Your task to perform on an android device: toggle javascript in the chrome app Image 0: 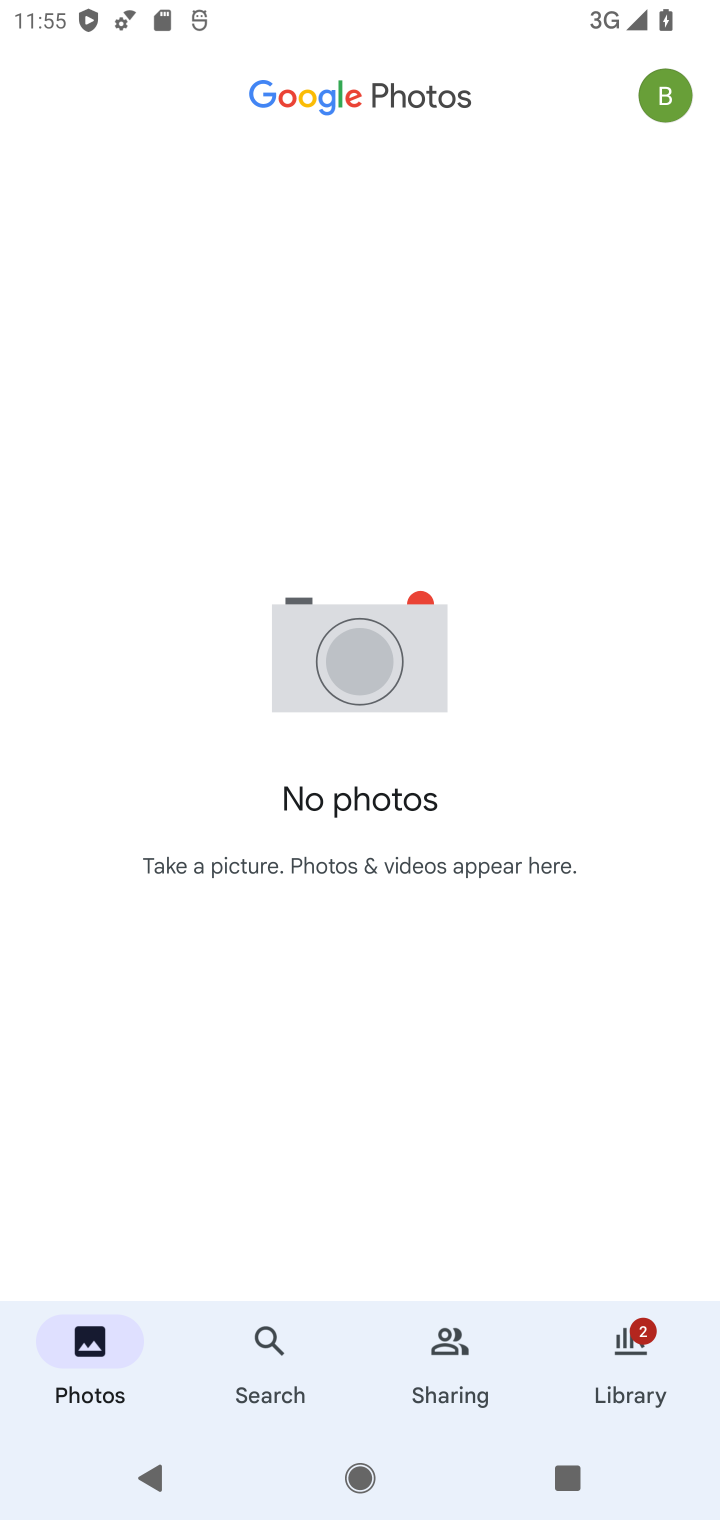
Step 0: press home button
Your task to perform on an android device: toggle javascript in the chrome app Image 1: 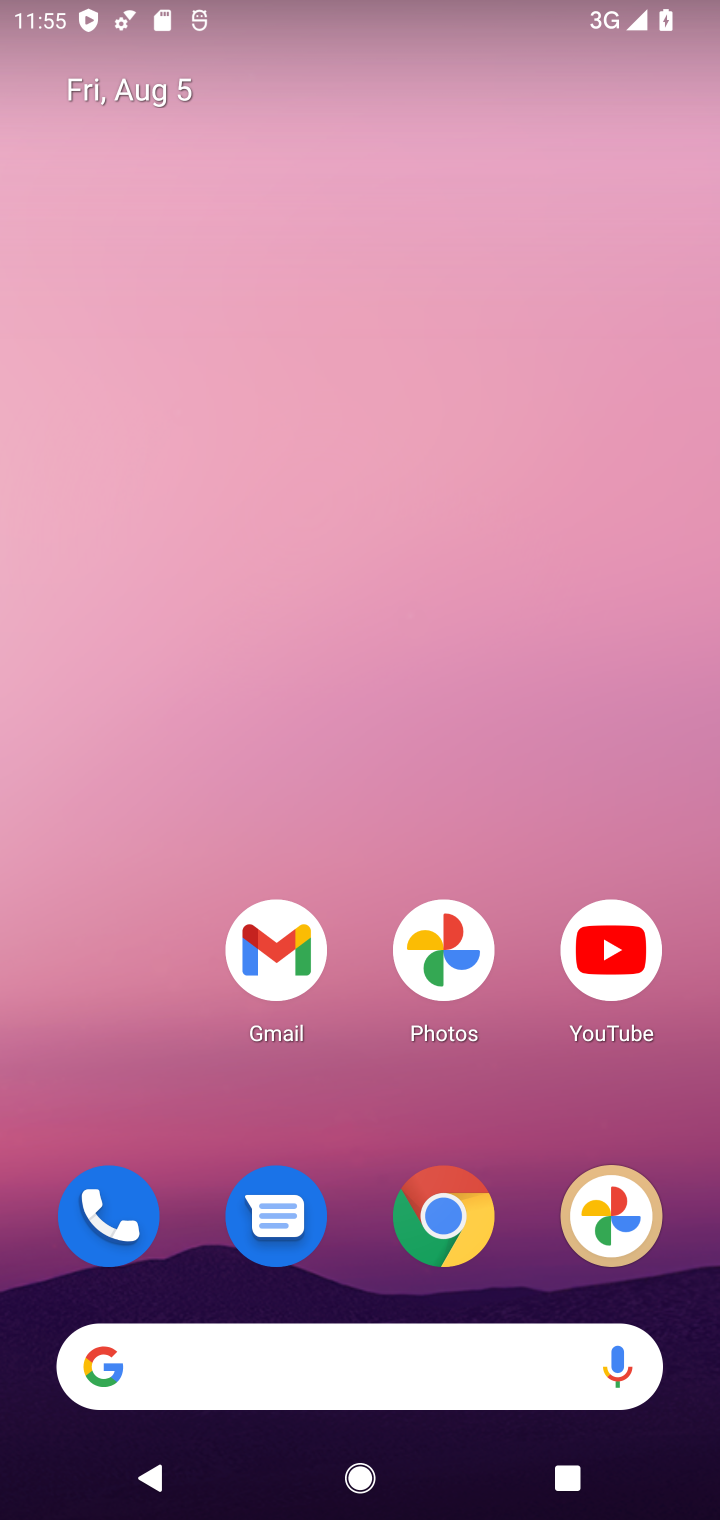
Step 1: click (439, 1209)
Your task to perform on an android device: toggle javascript in the chrome app Image 2: 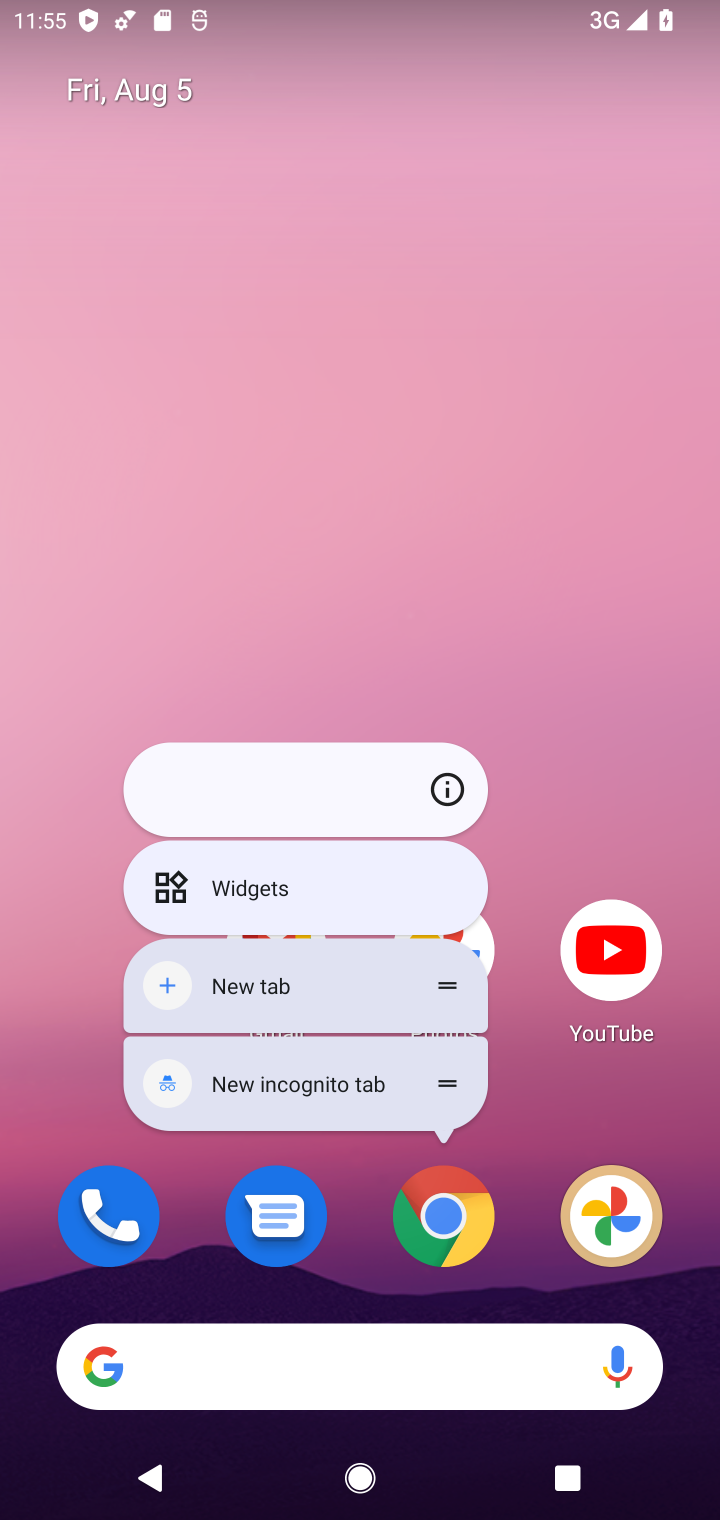
Step 2: click (430, 1208)
Your task to perform on an android device: toggle javascript in the chrome app Image 3: 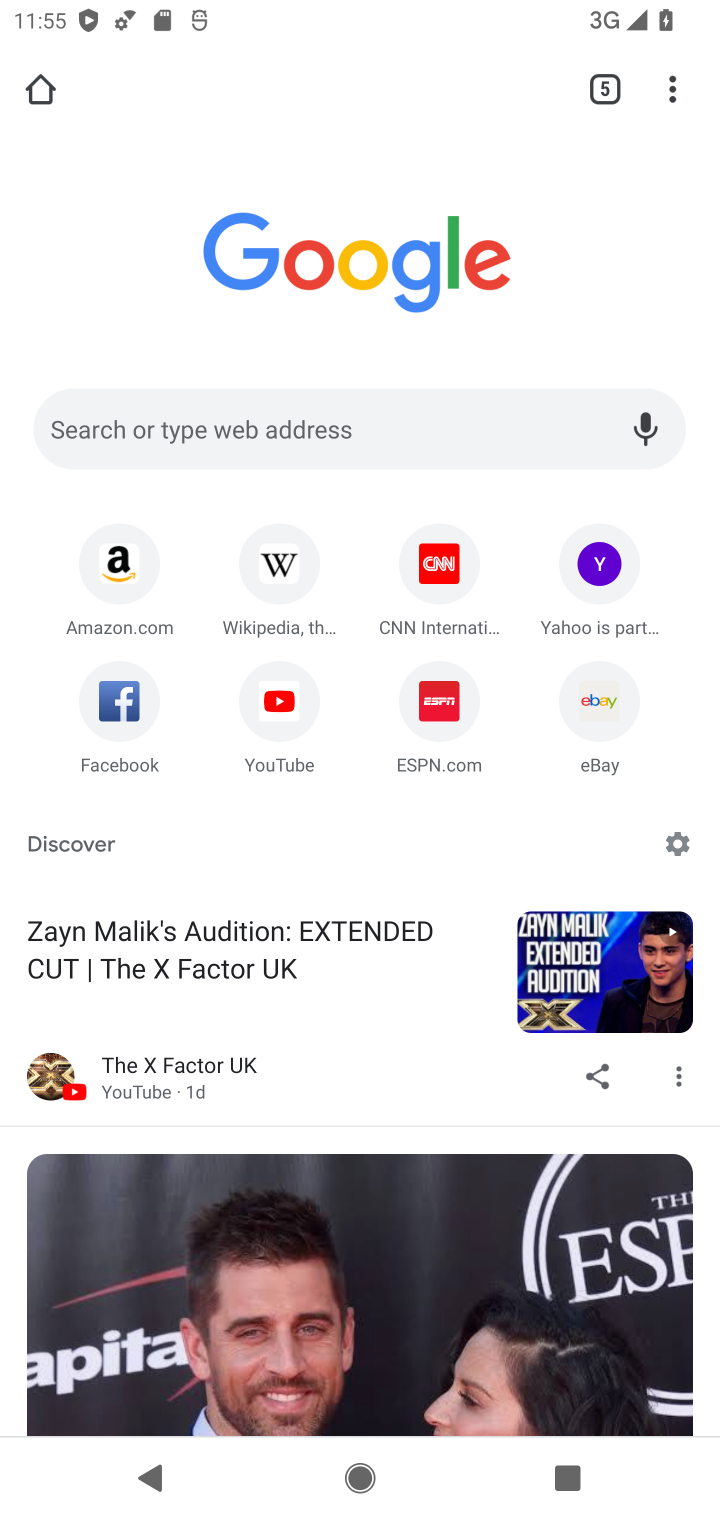
Step 3: drag from (682, 77) to (547, 476)
Your task to perform on an android device: toggle javascript in the chrome app Image 4: 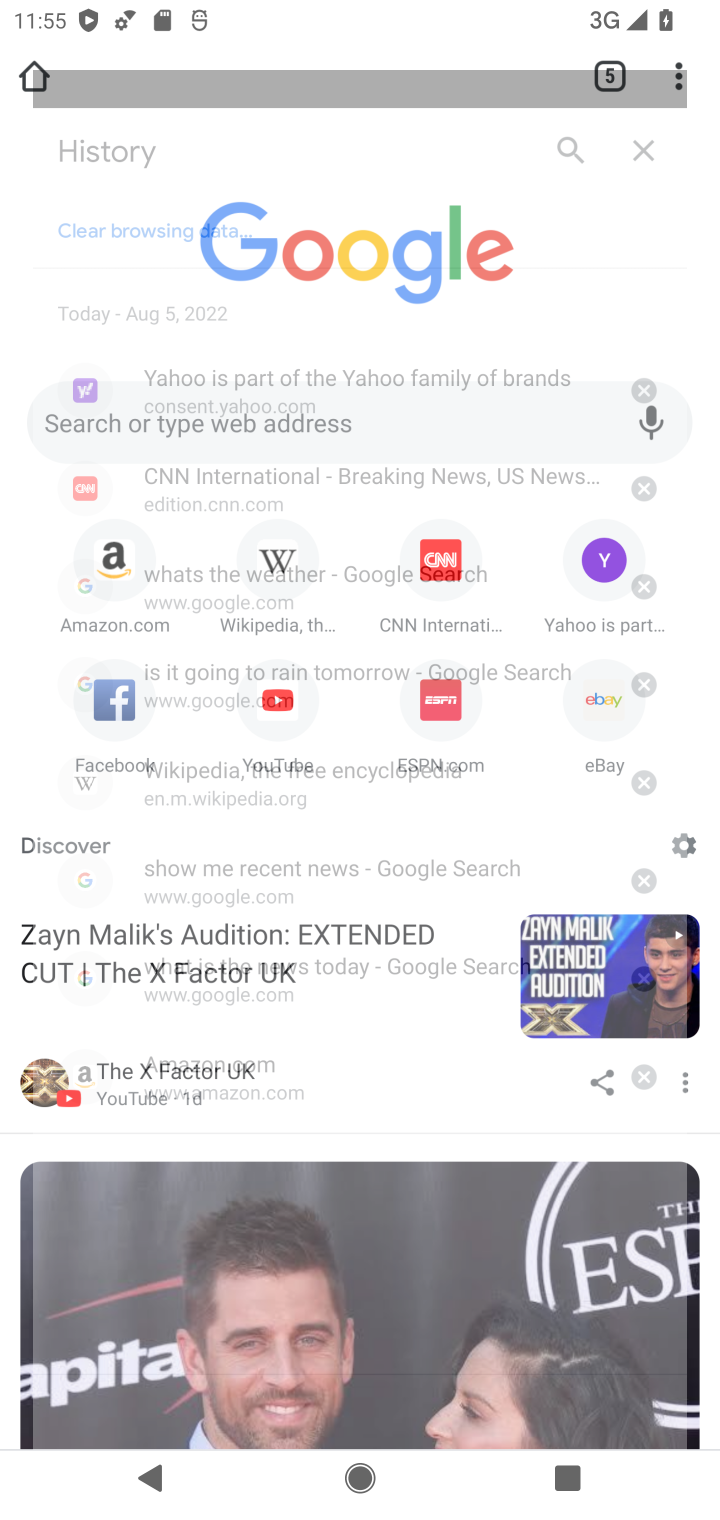
Step 4: click (414, 908)
Your task to perform on an android device: toggle javascript in the chrome app Image 5: 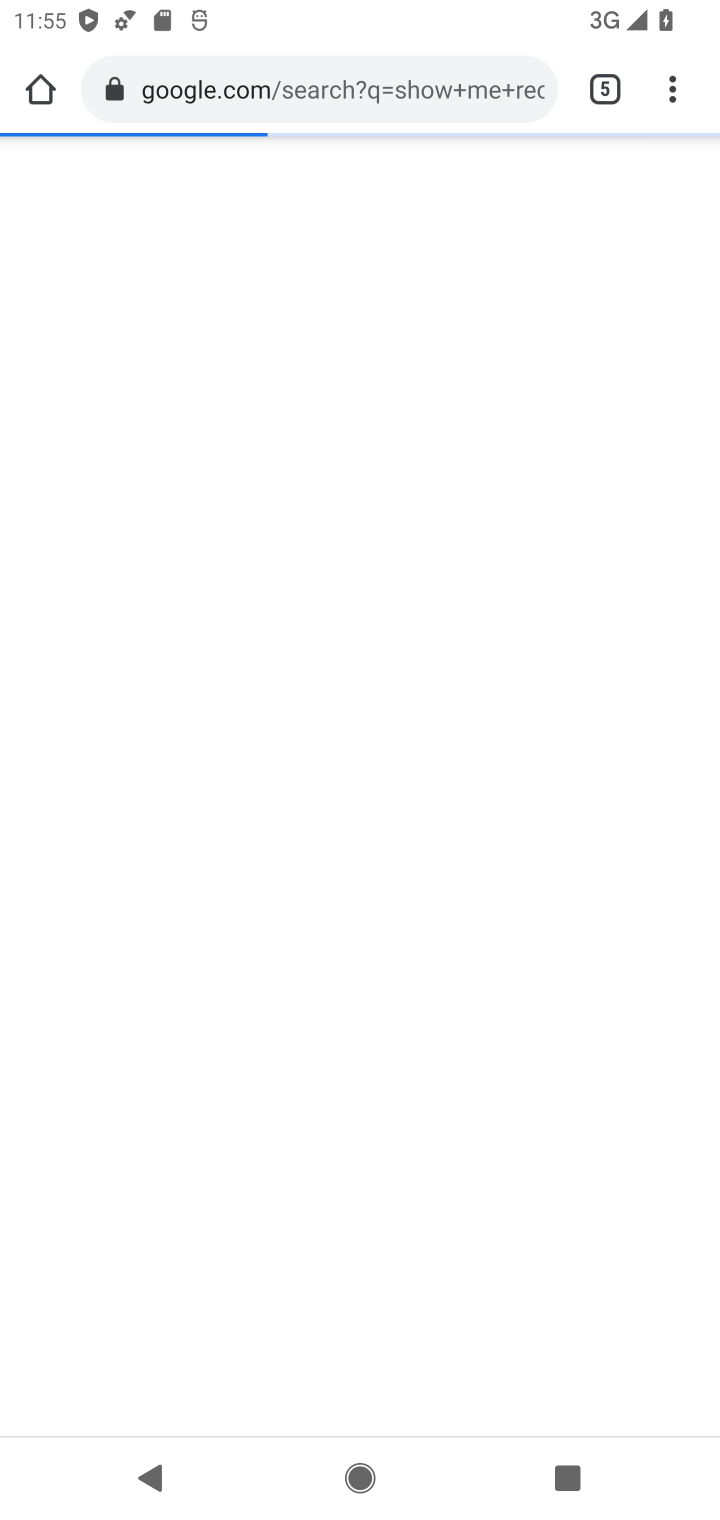
Step 5: click (670, 69)
Your task to perform on an android device: toggle javascript in the chrome app Image 6: 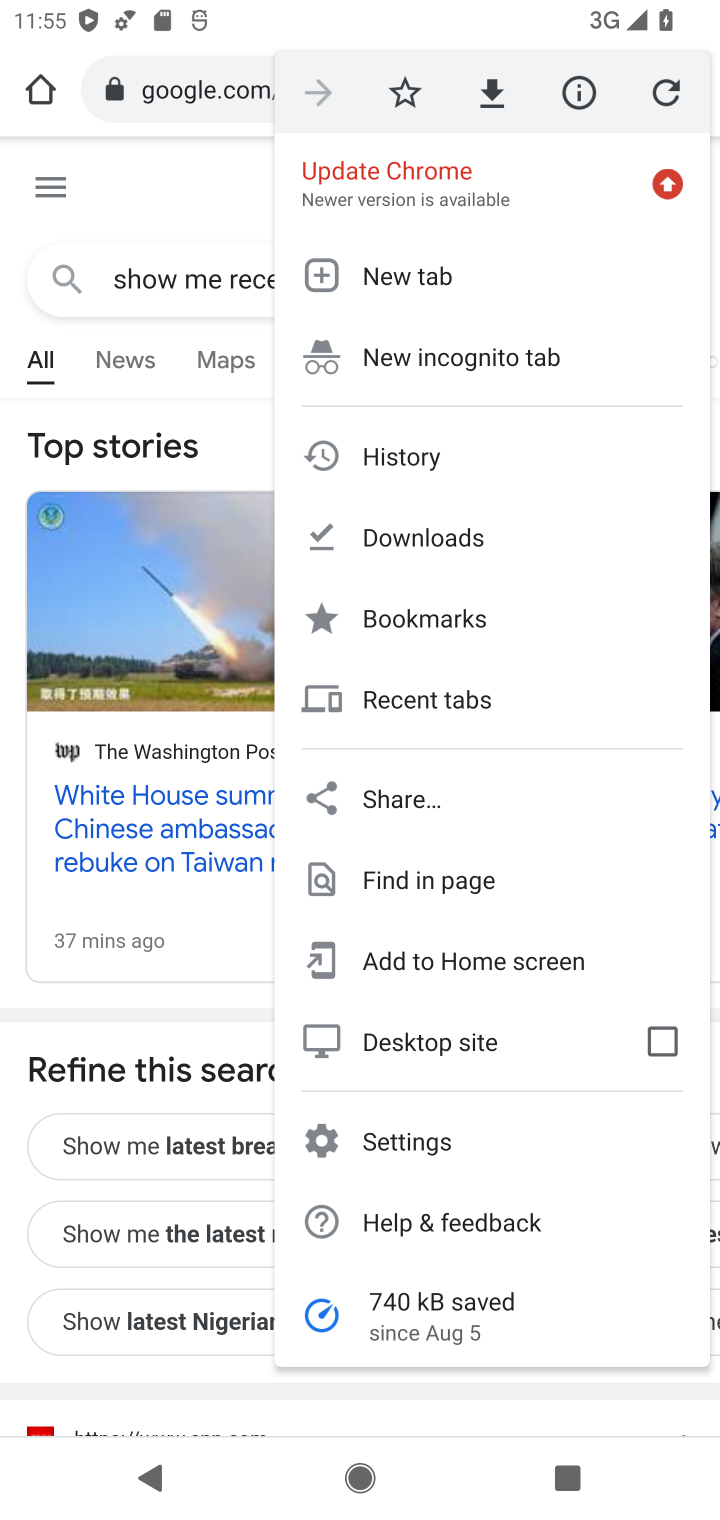
Step 6: click (394, 1137)
Your task to perform on an android device: toggle javascript in the chrome app Image 7: 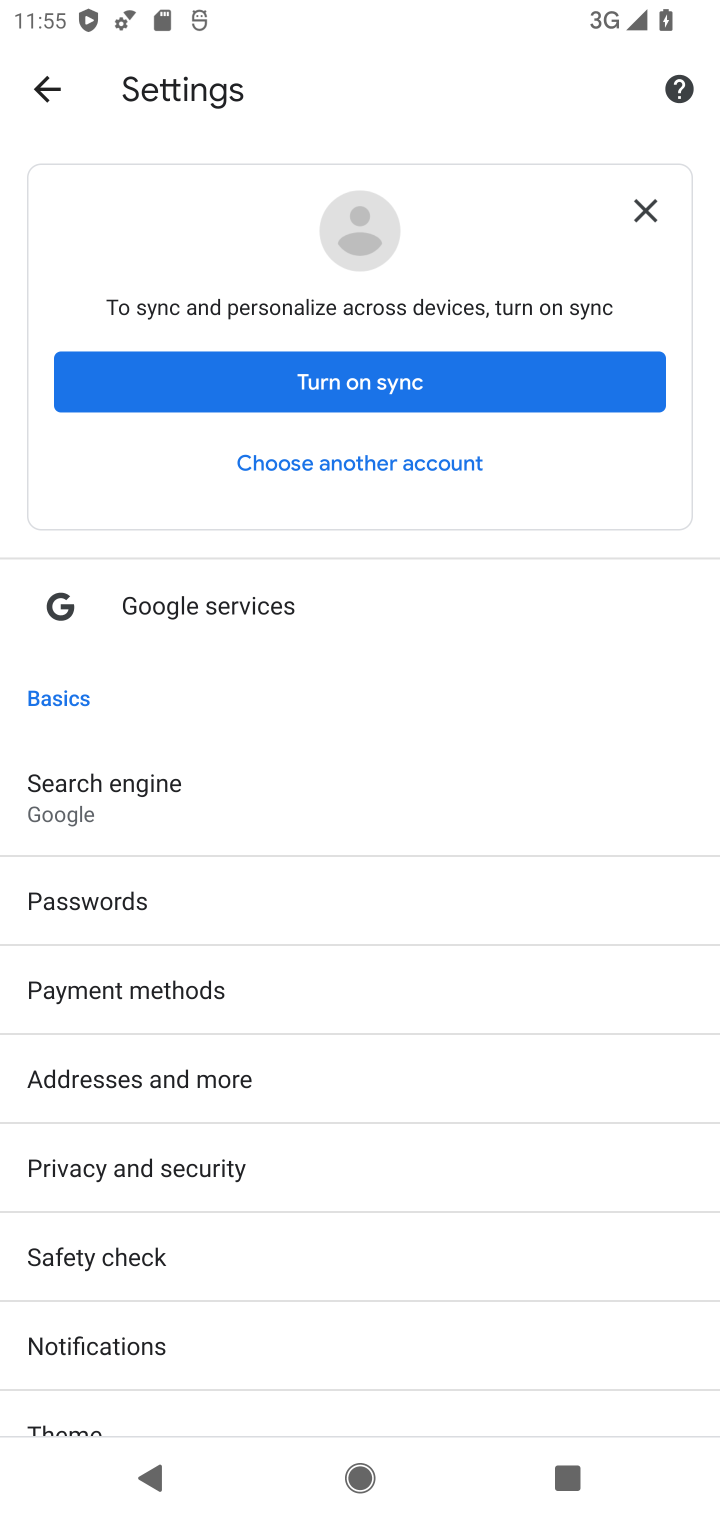
Step 7: drag from (309, 1344) to (323, 698)
Your task to perform on an android device: toggle javascript in the chrome app Image 8: 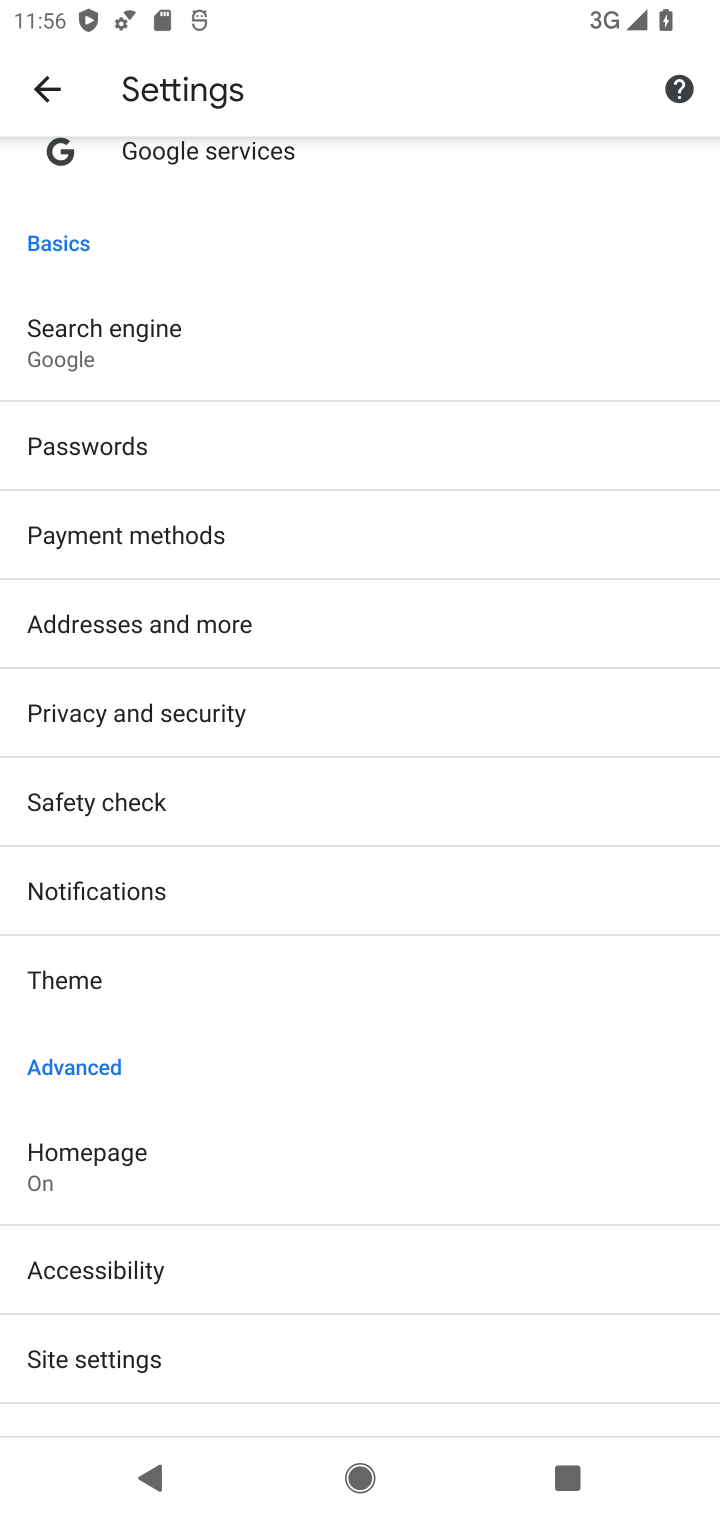
Step 8: click (156, 1344)
Your task to perform on an android device: toggle javascript in the chrome app Image 9: 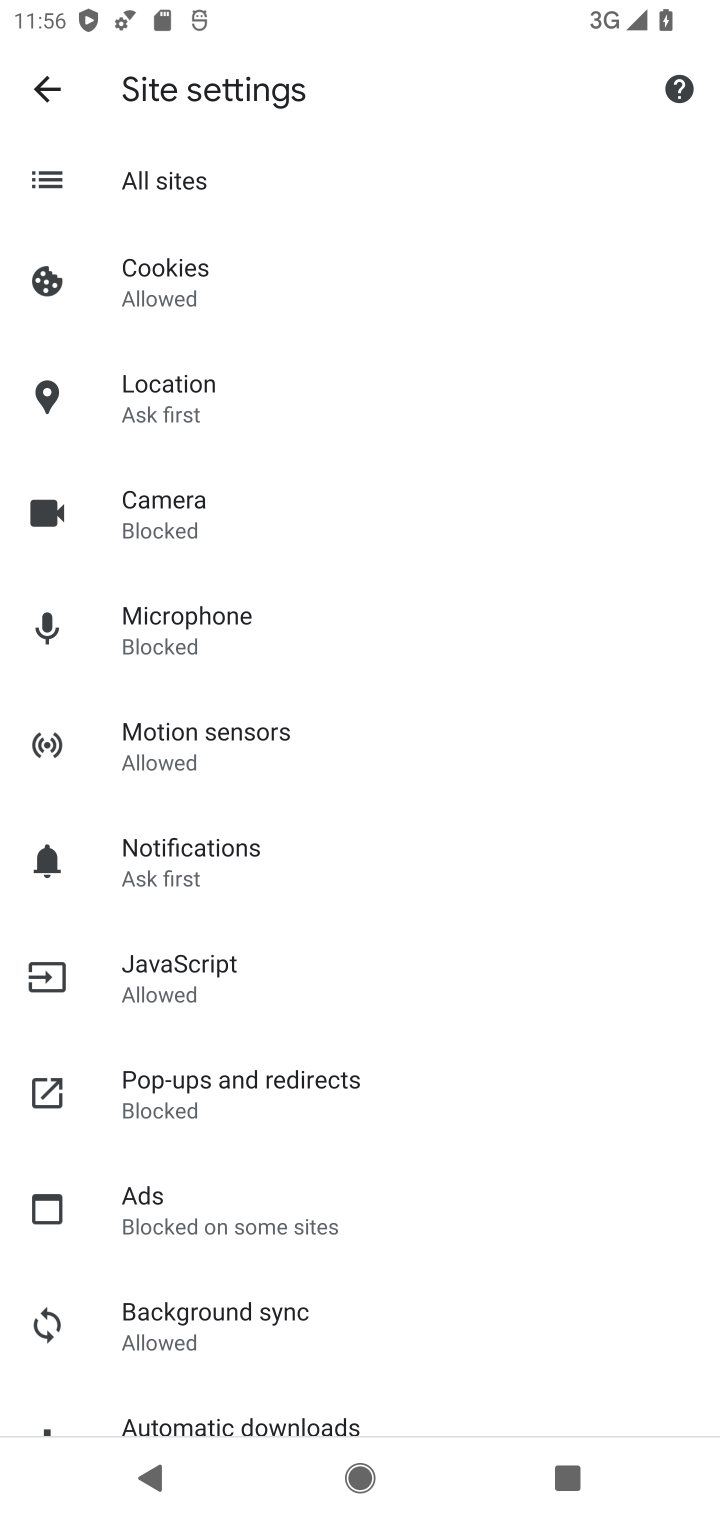
Step 9: click (214, 984)
Your task to perform on an android device: toggle javascript in the chrome app Image 10: 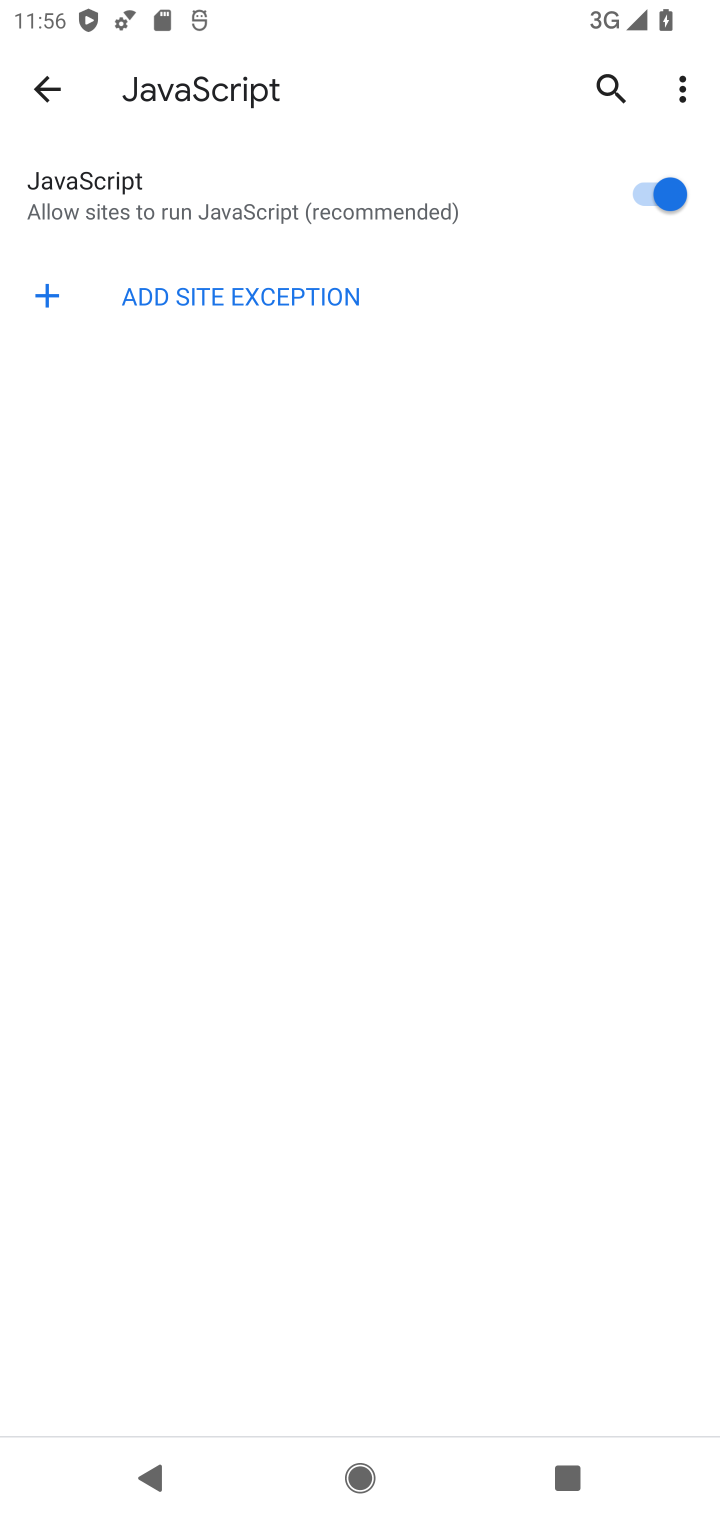
Step 10: click (636, 195)
Your task to perform on an android device: toggle javascript in the chrome app Image 11: 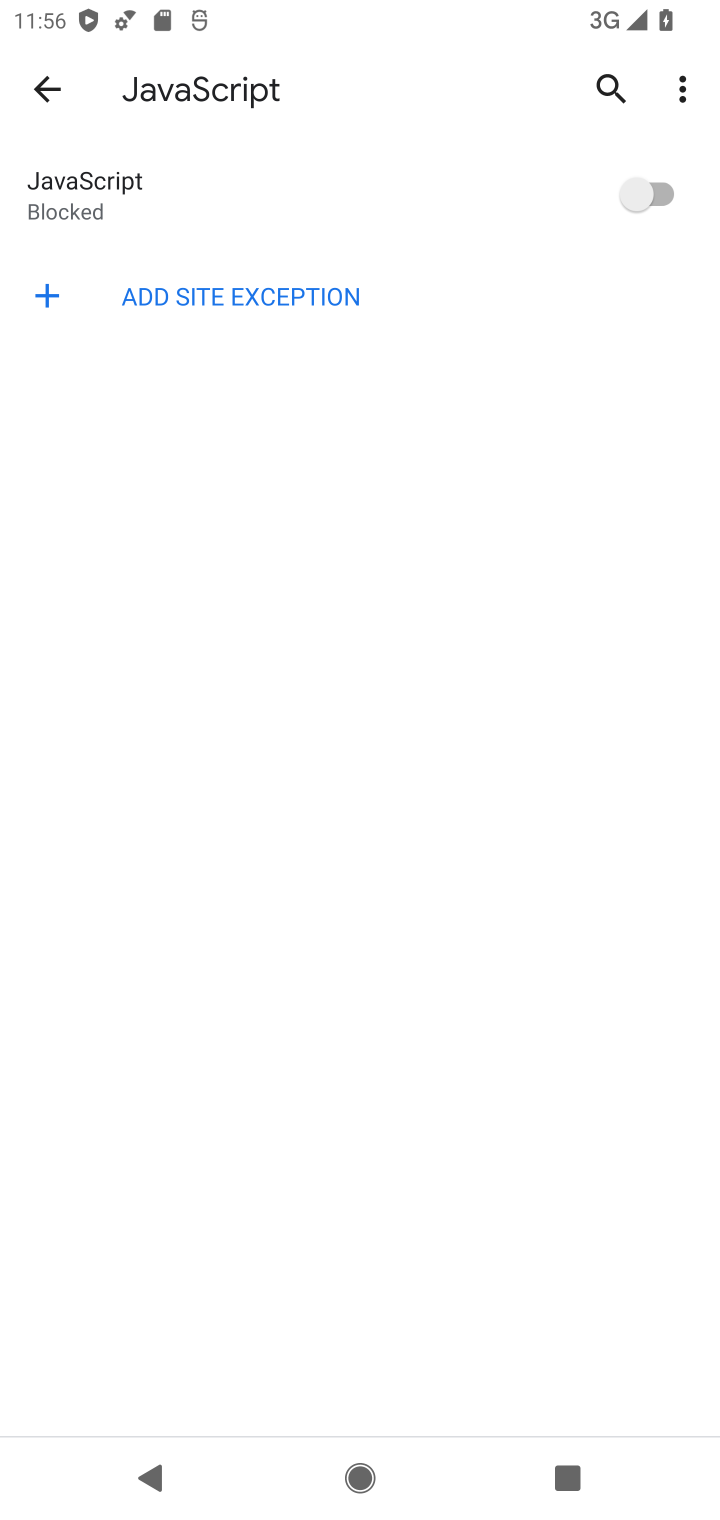
Step 11: task complete